Your task to perform on an android device: all mails in gmail Image 0: 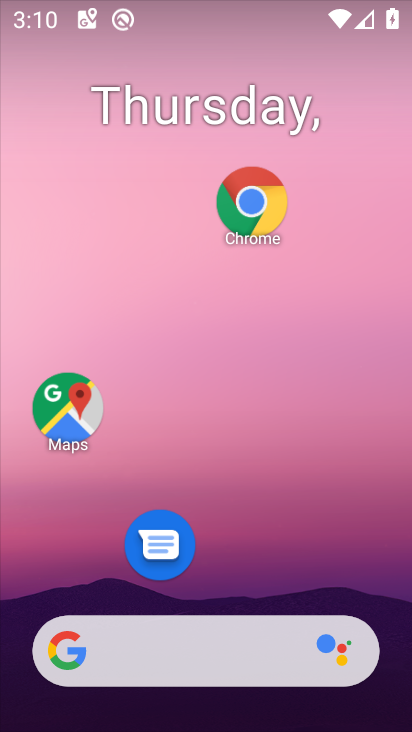
Step 0: drag from (246, 612) to (247, 342)
Your task to perform on an android device: all mails in gmail Image 1: 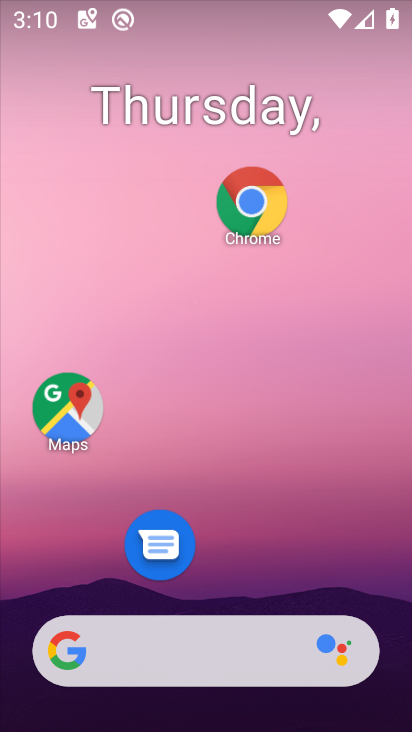
Step 1: drag from (212, 653) to (198, 295)
Your task to perform on an android device: all mails in gmail Image 2: 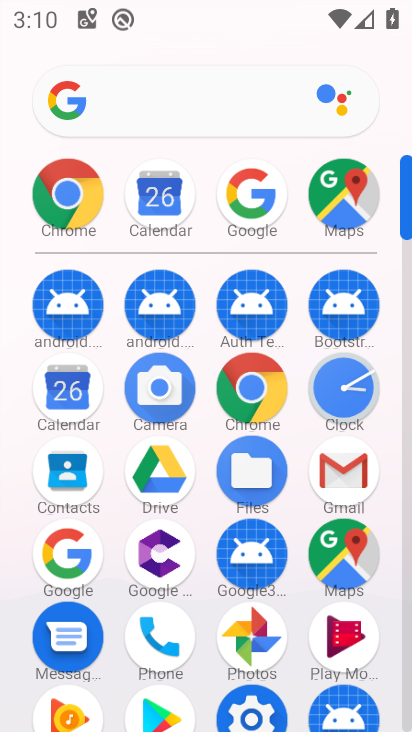
Step 2: click (359, 458)
Your task to perform on an android device: all mails in gmail Image 3: 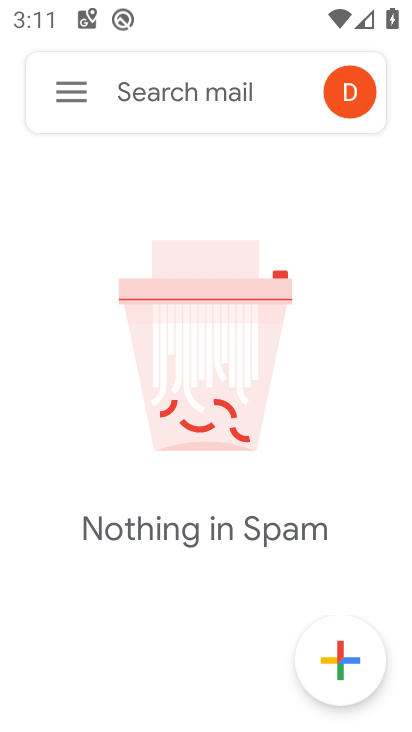
Step 3: click (70, 88)
Your task to perform on an android device: all mails in gmail Image 4: 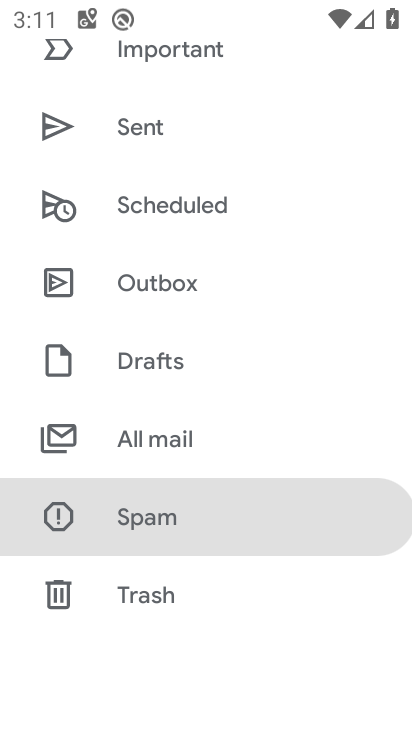
Step 4: click (156, 438)
Your task to perform on an android device: all mails in gmail Image 5: 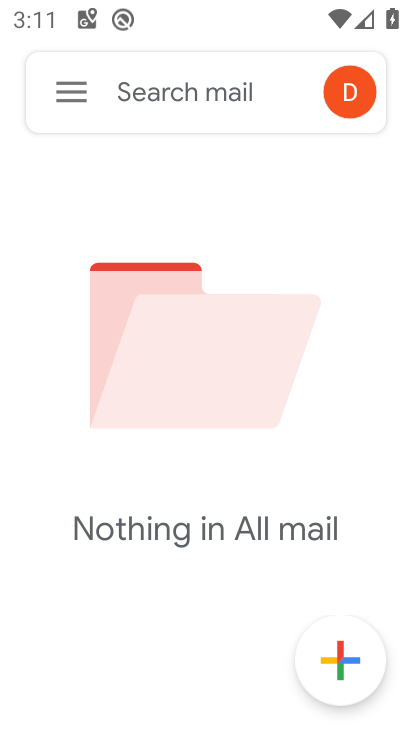
Step 5: task complete